Your task to perform on an android device: Open display settings Image 0: 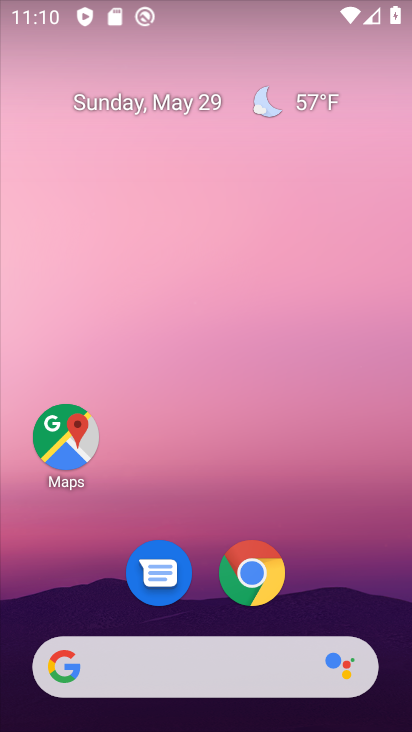
Step 0: drag from (343, 648) to (357, 12)
Your task to perform on an android device: Open display settings Image 1: 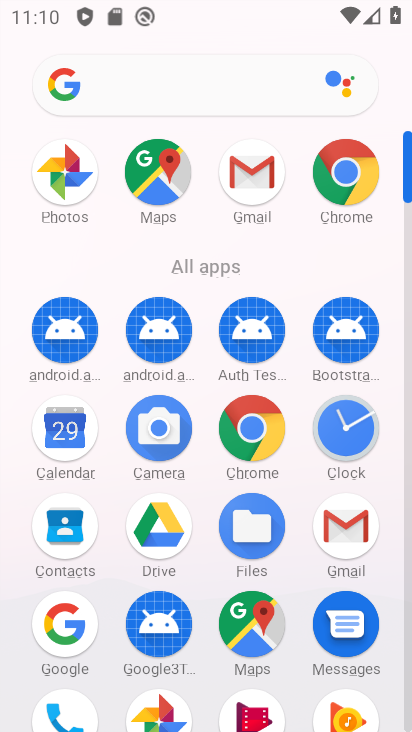
Step 1: drag from (210, 584) to (216, 100)
Your task to perform on an android device: Open display settings Image 2: 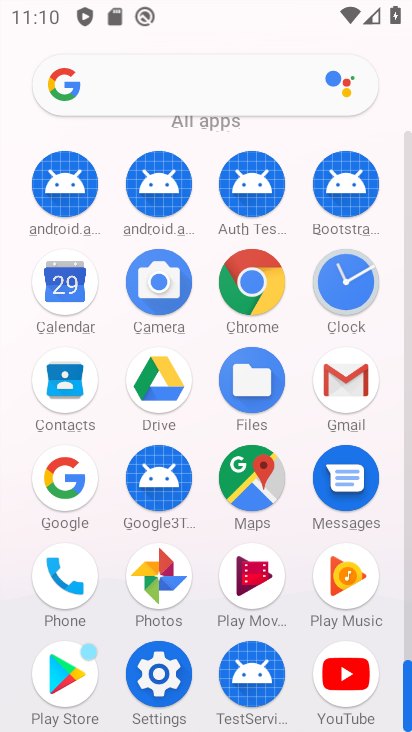
Step 2: click (160, 681)
Your task to perform on an android device: Open display settings Image 3: 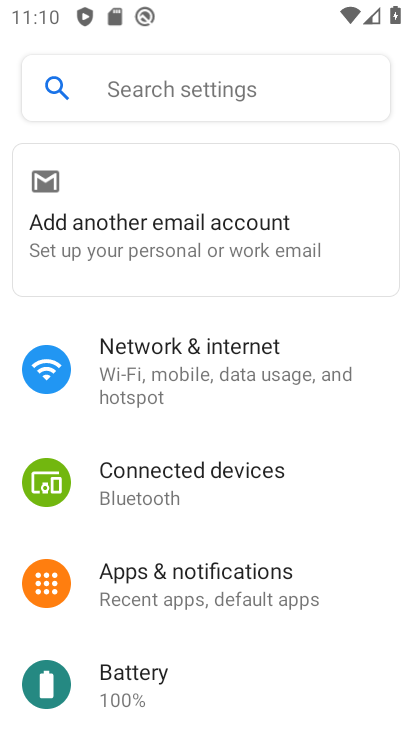
Step 3: drag from (239, 569) to (276, 125)
Your task to perform on an android device: Open display settings Image 4: 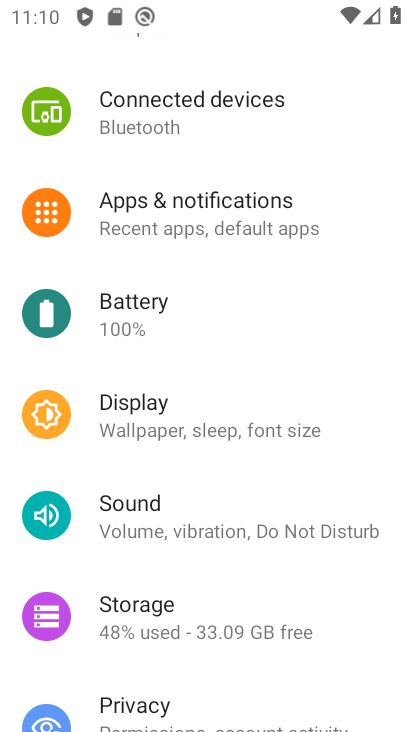
Step 4: click (195, 431)
Your task to perform on an android device: Open display settings Image 5: 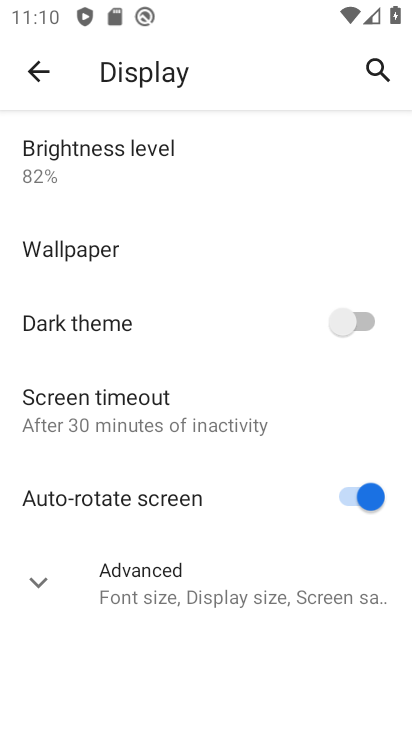
Step 5: task complete